Your task to perform on an android device: open a new tab in the chrome app Image 0: 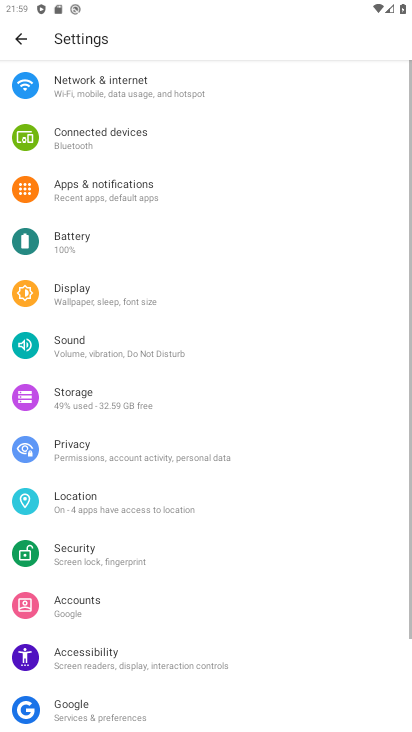
Step 0: press home button
Your task to perform on an android device: open a new tab in the chrome app Image 1: 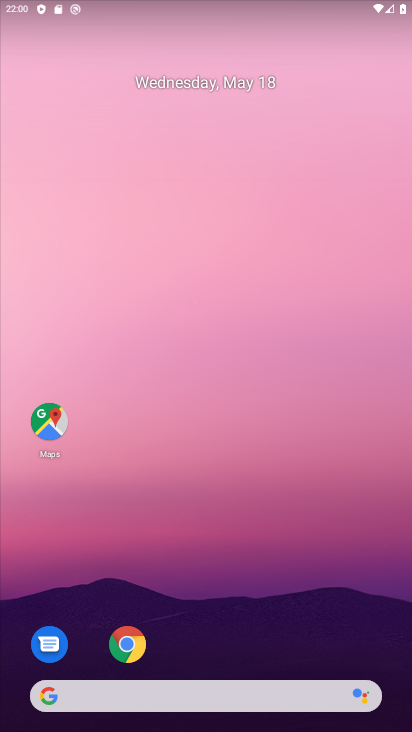
Step 1: click (117, 636)
Your task to perform on an android device: open a new tab in the chrome app Image 2: 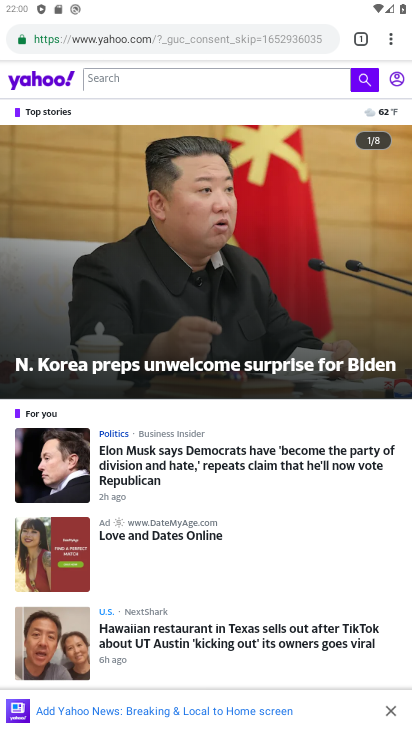
Step 2: click (388, 33)
Your task to perform on an android device: open a new tab in the chrome app Image 3: 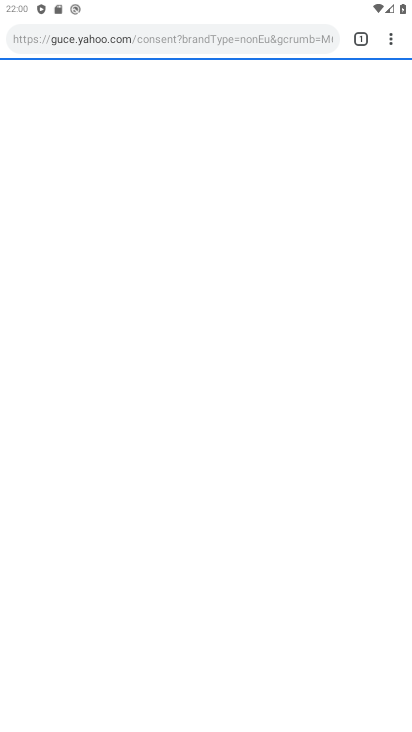
Step 3: task complete